Your task to perform on an android device: change the upload size in google photos Image 0: 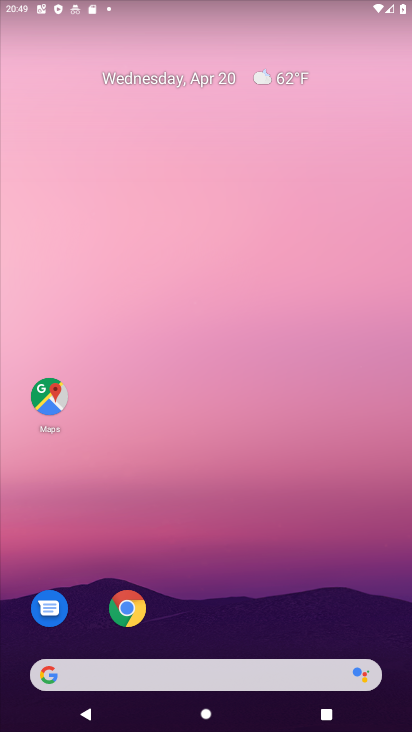
Step 0: click (352, 38)
Your task to perform on an android device: change the upload size in google photos Image 1: 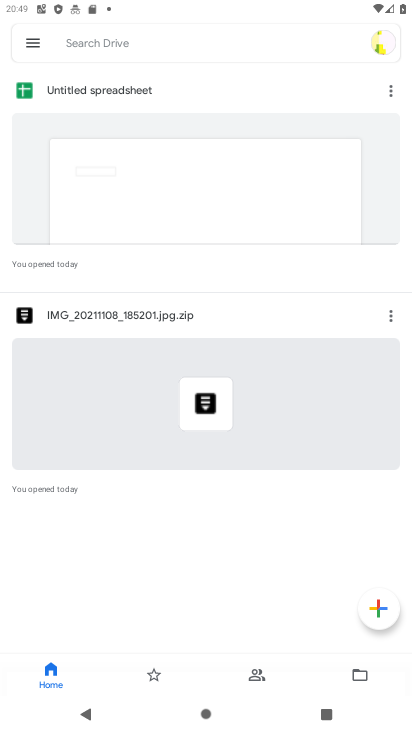
Step 1: press home button
Your task to perform on an android device: change the upload size in google photos Image 2: 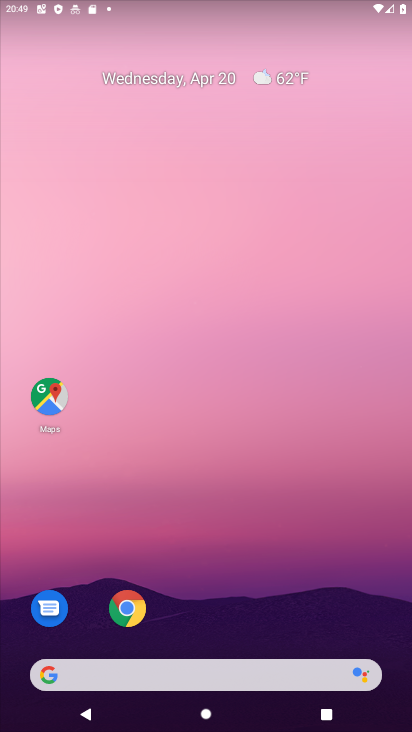
Step 2: drag from (292, 531) to (247, 14)
Your task to perform on an android device: change the upload size in google photos Image 3: 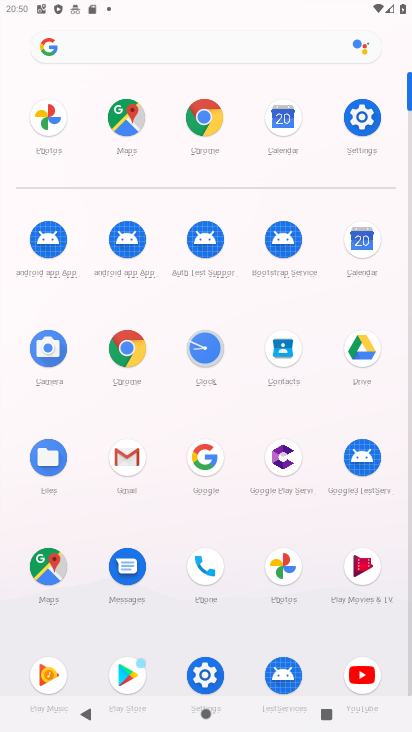
Step 3: click (39, 131)
Your task to perform on an android device: change the upload size in google photos Image 4: 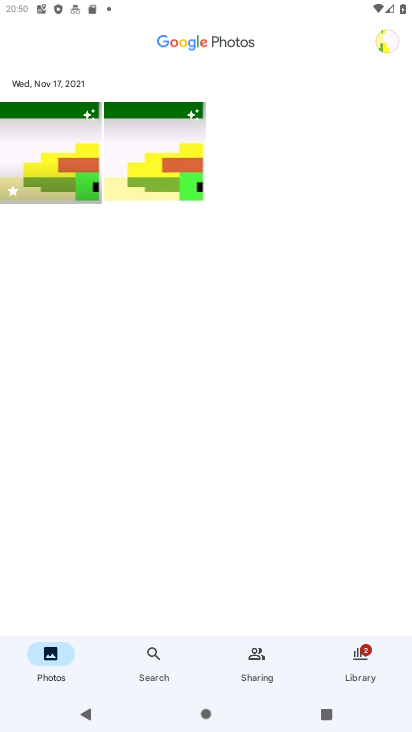
Step 4: click (377, 50)
Your task to perform on an android device: change the upload size in google photos Image 5: 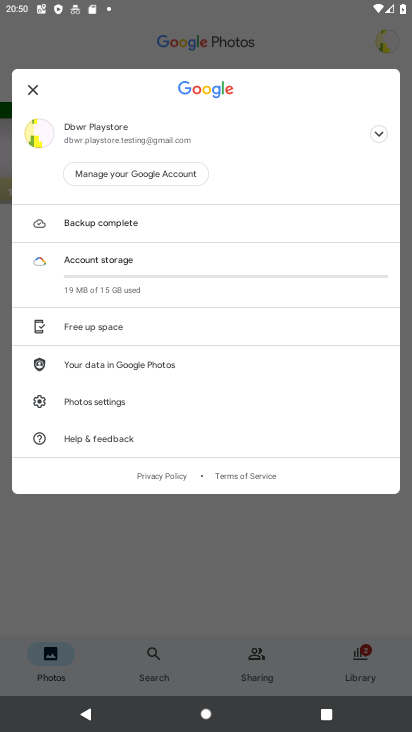
Step 5: click (128, 406)
Your task to perform on an android device: change the upload size in google photos Image 6: 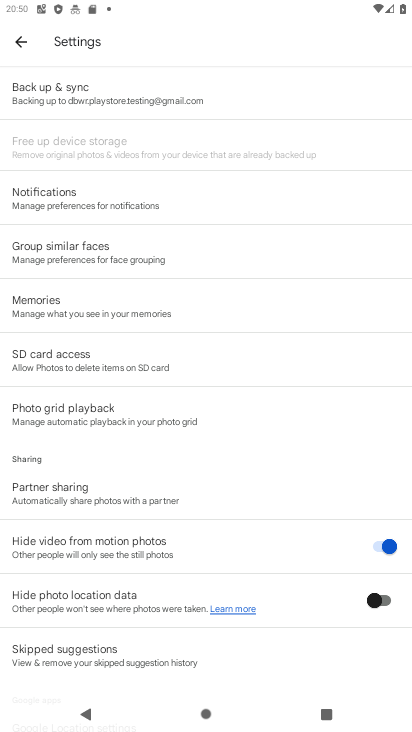
Step 6: drag from (218, 407) to (211, 22)
Your task to perform on an android device: change the upload size in google photos Image 7: 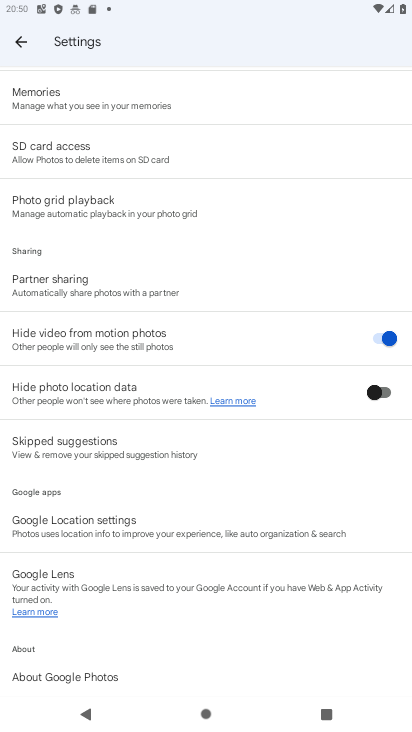
Step 7: drag from (185, 565) to (215, 175)
Your task to perform on an android device: change the upload size in google photos Image 8: 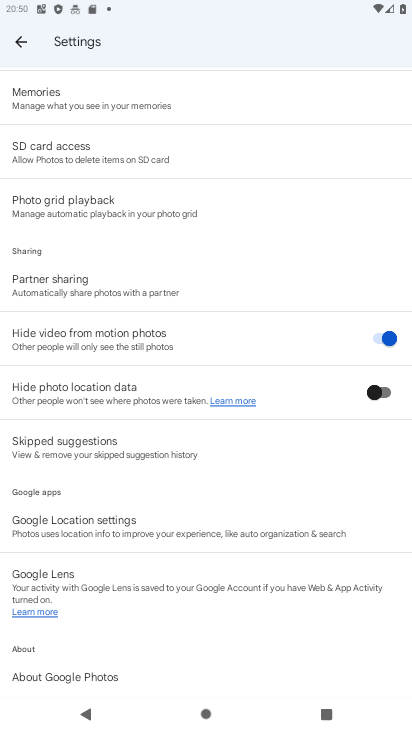
Step 8: drag from (213, 175) to (148, 652)
Your task to perform on an android device: change the upload size in google photos Image 9: 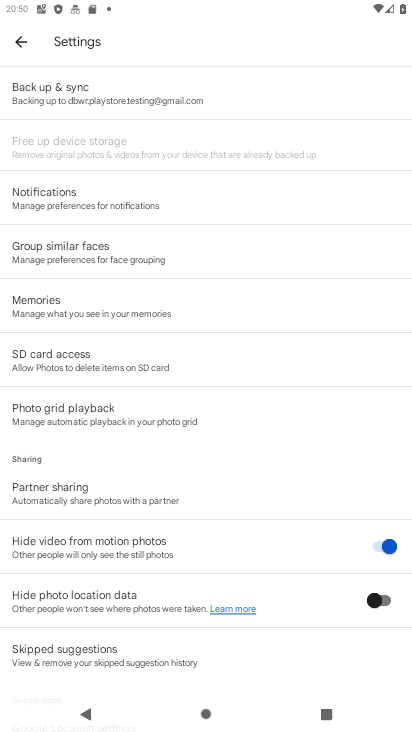
Step 9: click (95, 91)
Your task to perform on an android device: change the upload size in google photos Image 10: 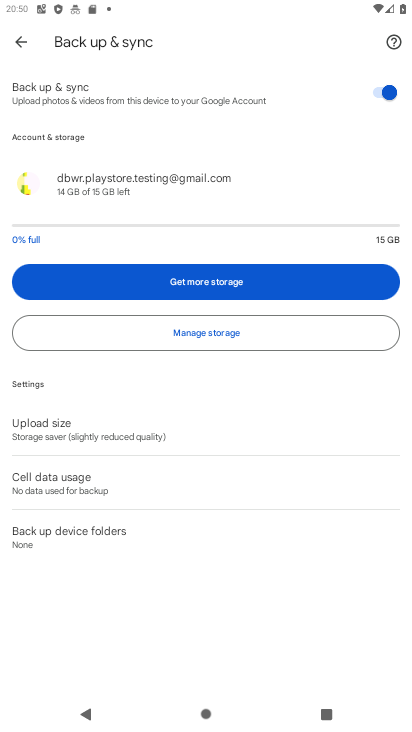
Step 10: click (85, 428)
Your task to perform on an android device: change the upload size in google photos Image 11: 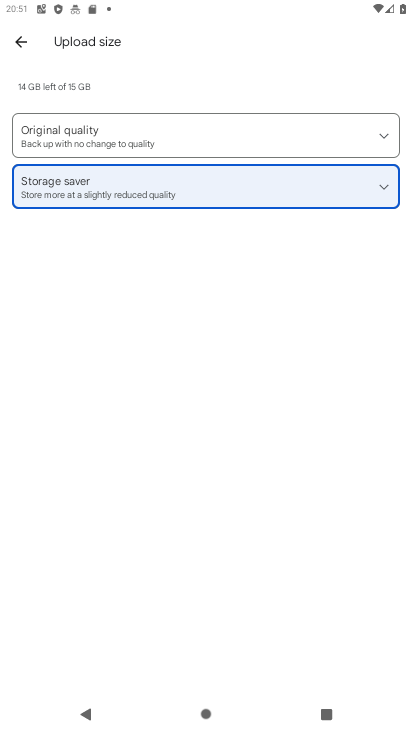
Step 11: click (146, 148)
Your task to perform on an android device: change the upload size in google photos Image 12: 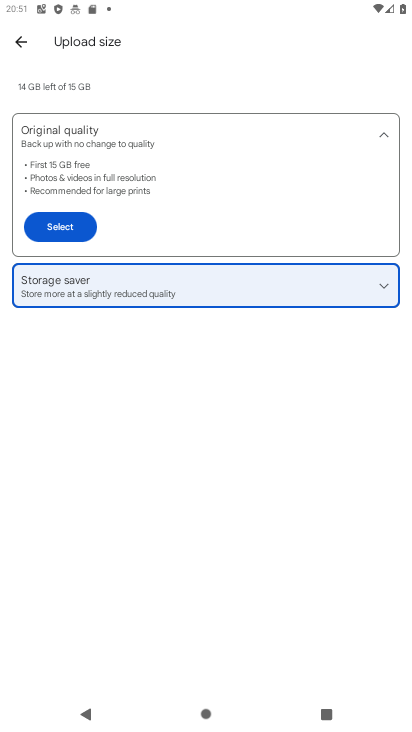
Step 12: click (70, 238)
Your task to perform on an android device: change the upload size in google photos Image 13: 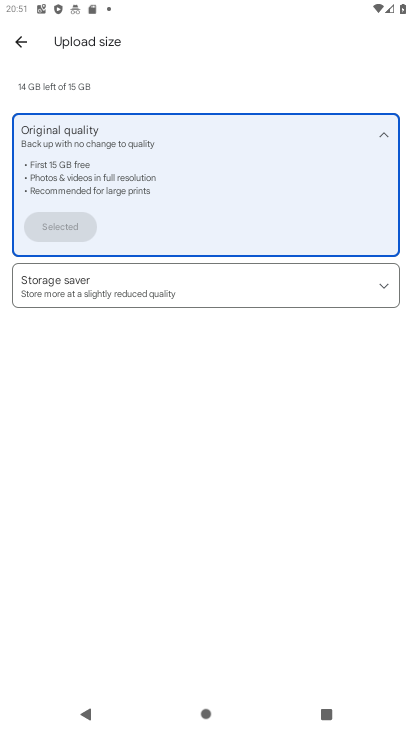
Step 13: task complete